Your task to perform on an android device: turn off priority inbox in the gmail app Image 0: 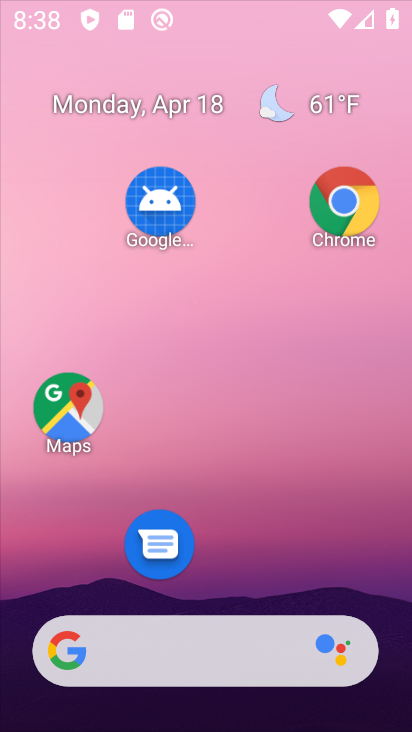
Step 0: drag from (230, 611) to (404, 365)
Your task to perform on an android device: turn off priority inbox in the gmail app Image 1: 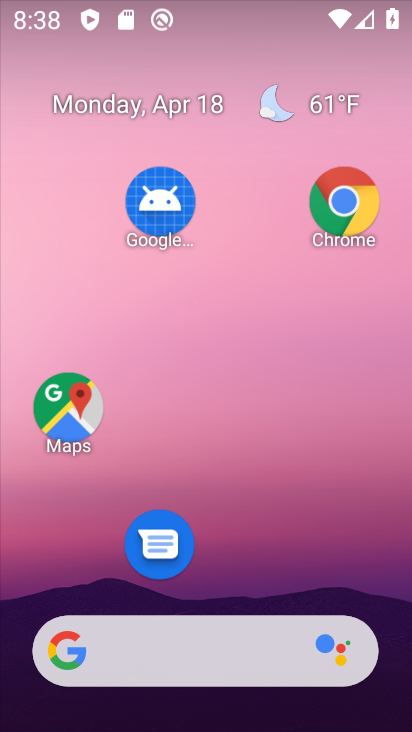
Step 1: drag from (258, 581) to (201, 7)
Your task to perform on an android device: turn off priority inbox in the gmail app Image 2: 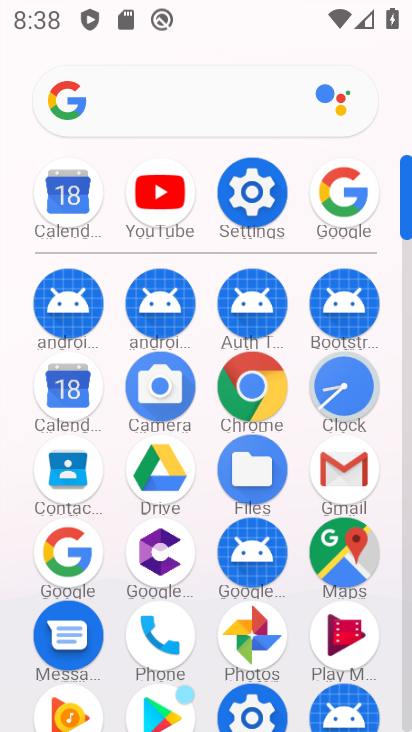
Step 2: click (339, 473)
Your task to perform on an android device: turn off priority inbox in the gmail app Image 3: 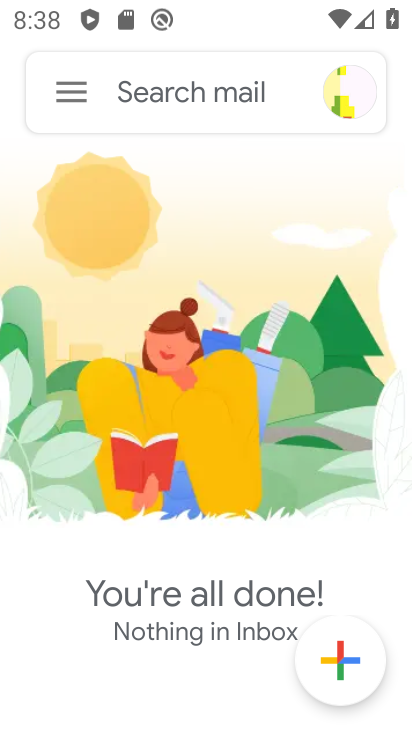
Step 3: click (67, 89)
Your task to perform on an android device: turn off priority inbox in the gmail app Image 4: 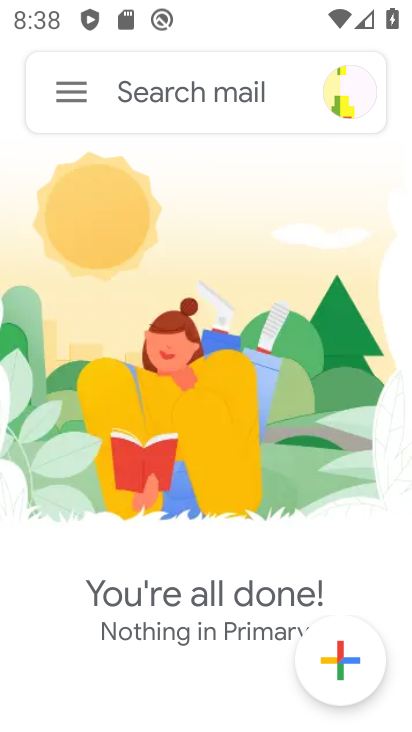
Step 4: click (61, 88)
Your task to perform on an android device: turn off priority inbox in the gmail app Image 5: 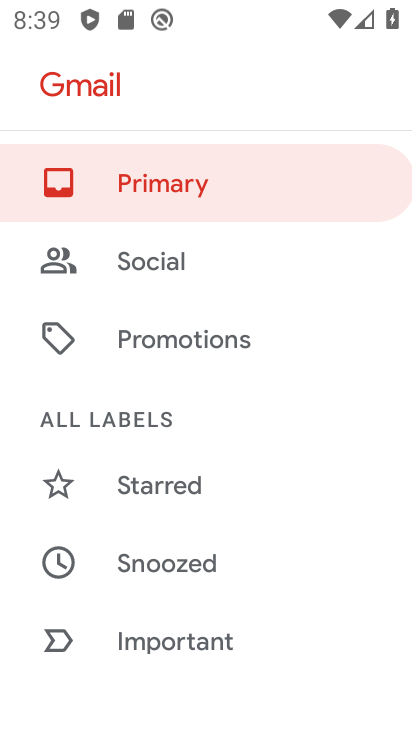
Step 5: drag from (112, 563) to (93, 60)
Your task to perform on an android device: turn off priority inbox in the gmail app Image 6: 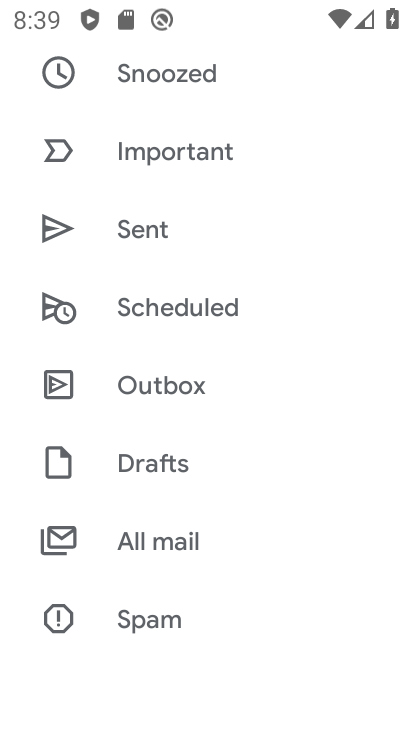
Step 6: drag from (220, 604) to (153, 99)
Your task to perform on an android device: turn off priority inbox in the gmail app Image 7: 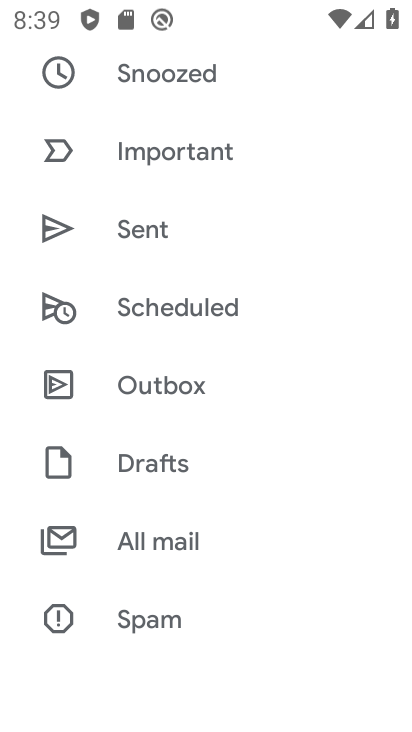
Step 7: drag from (98, 554) to (68, 2)
Your task to perform on an android device: turn off priority inbox in the gmail app Image 8: 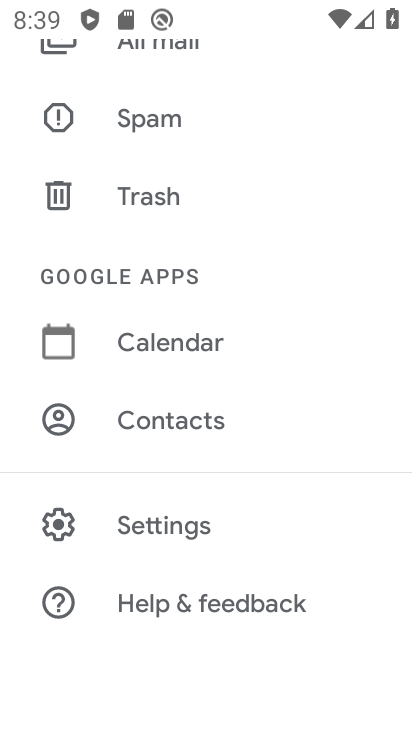
Step 8: click (115, 506)
Your task to perform on an android device: turn off priority inbox in the gmail app Image 9: 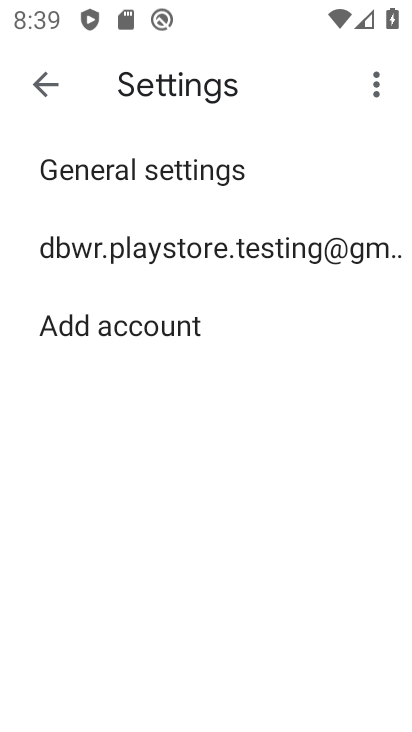
Step 9: click (140, 238)
Your task to perform on an android device: turn off priority inbox in the gmail app Image 10: 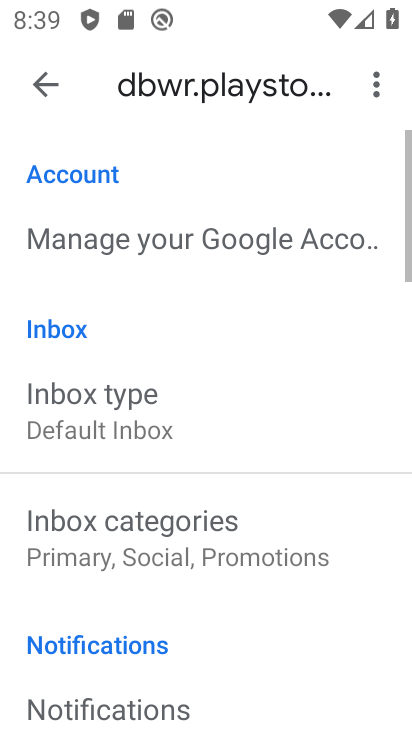
Step 10: click (158, 386)
Your task to perform on an android device: turn off priority inbox in the gmail app Image 11: 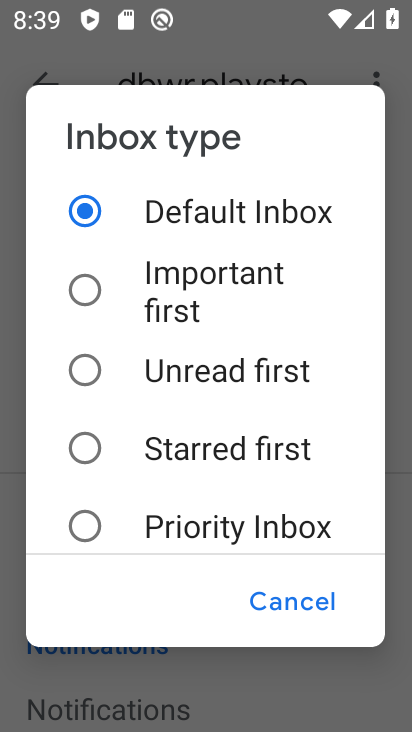
Step 11: task complete